Your task to perform on an android device: Is it going to rain today? Image 0: 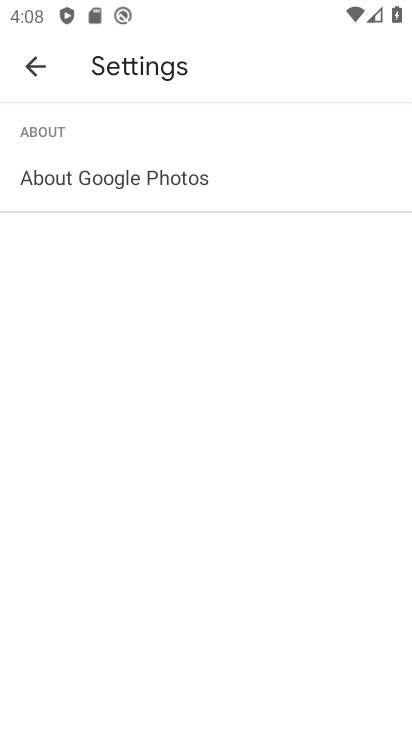
Step 0: press home button
Your task to perform on an android device: Is it going to rain today? Image 1: 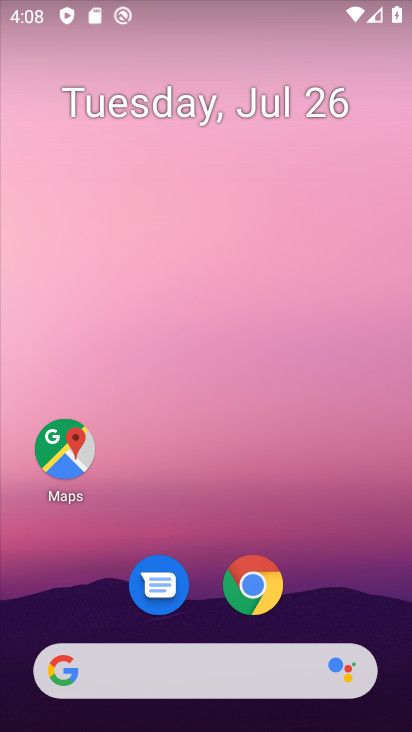
Step 1: click (198, 676)
Your task to perform on an android device: Is it going to rain today? Image 2: 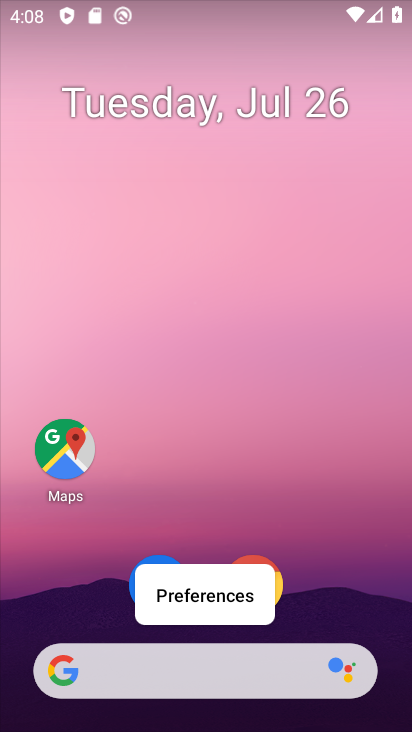
Step 2: click (183, 680)
Your task to perform on an android device: Is it going to rain today? Image 3: 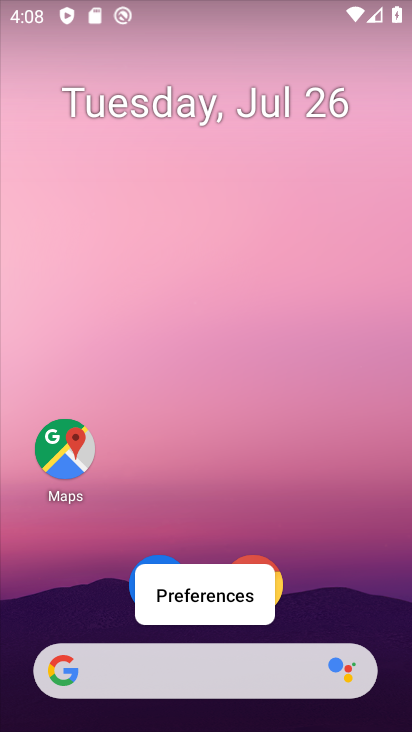
Step 3: click (220, 682)
Your task to perform on an android device: Is it going to rain today? Image 4: 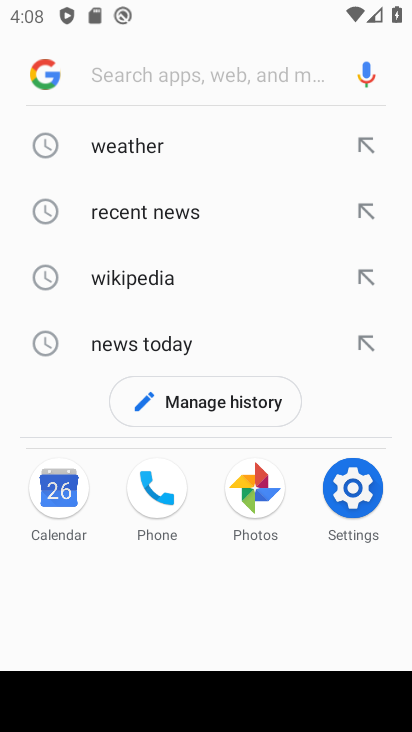
Step 4: click (134, 141)
Your task to perform on an android device: Is it going to rain today? Image 5: 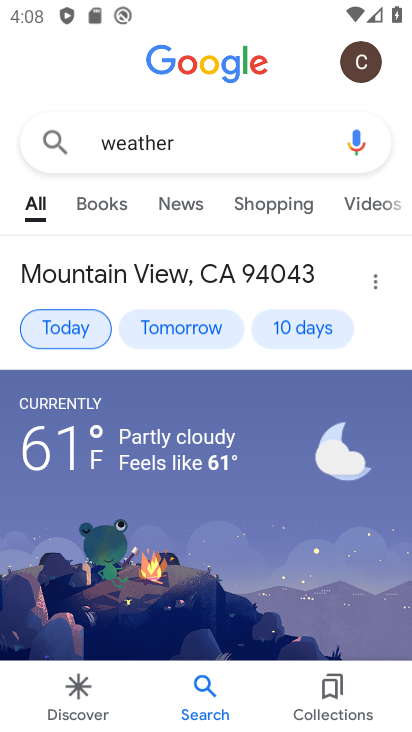
Step 5: click (73, 329)
Your task to perform on an android device: Is it going to rain today? Image 6: 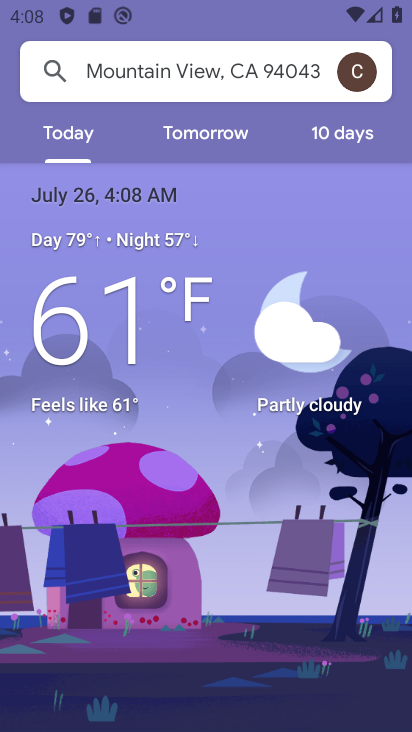
Step 6: task complete